Your task to perform on an android device: turn off location history Image 0: 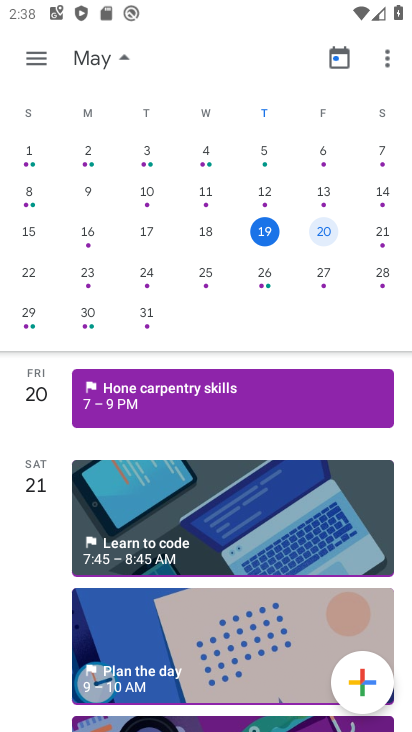
Step 0: press home button
Your task to perform on an android device: turn off location history Image 1: 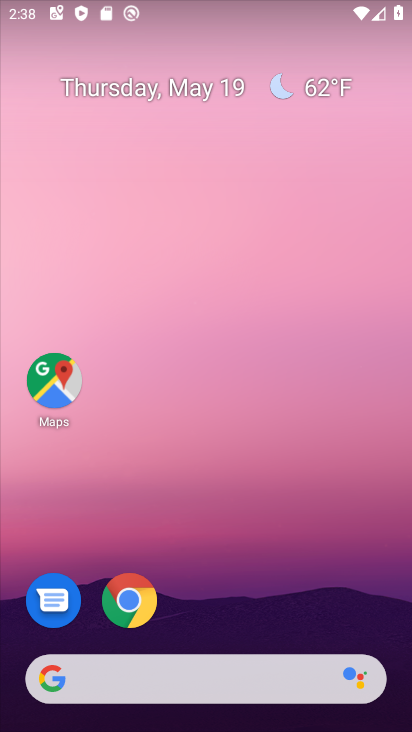
Step 1: drag from (53, 586) to (216, 151)
Your task to perform on an android device: turn off location history Image 2: 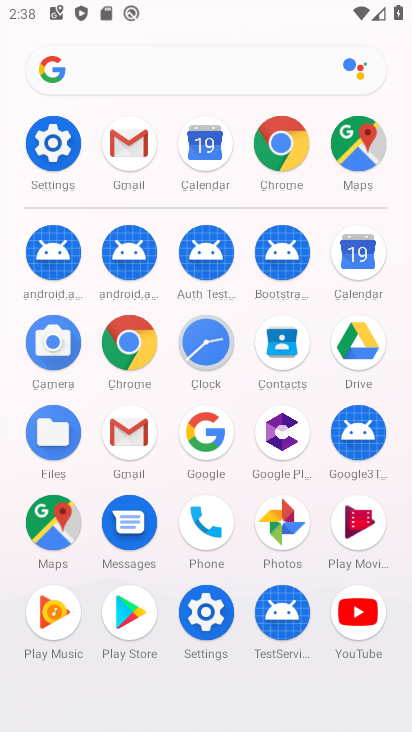
Step 2: click (47, 143)
Your task to perform on an android device: turn off location history Image 3: 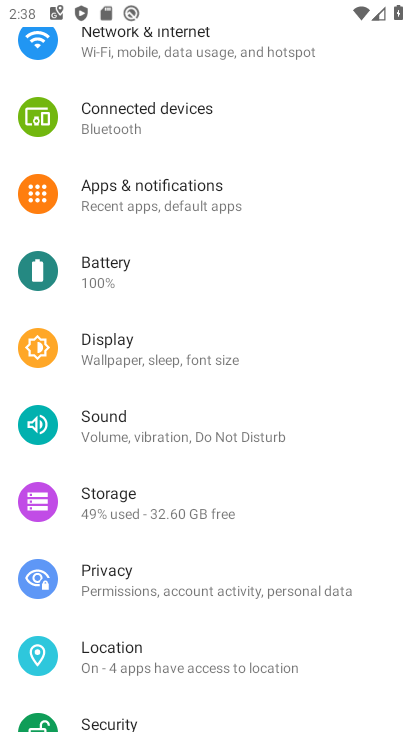
Step 3: click (153, 672)
Your task to perform on an android device: turn off location history Image 4: 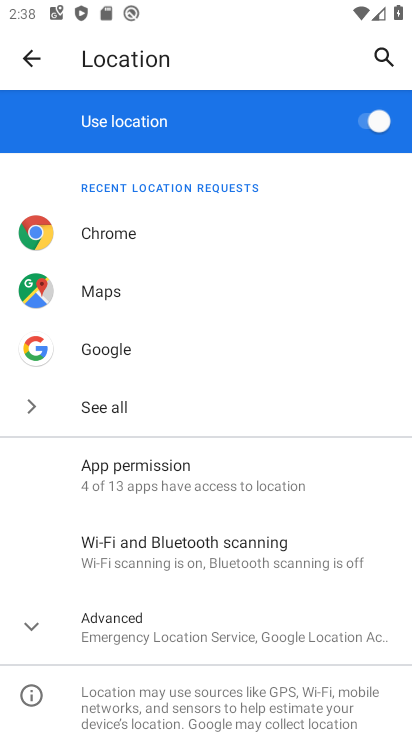
Step 4: click (193, 633)
Your task to perform on an android device: turn off location history Image 5: 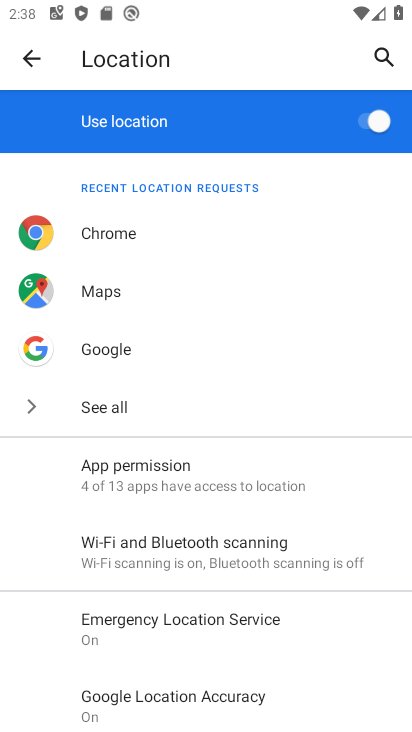
Step 5: drag from (4, 669) to (207, 298)
Your task to perform on an android device: turn off location history Image 6: 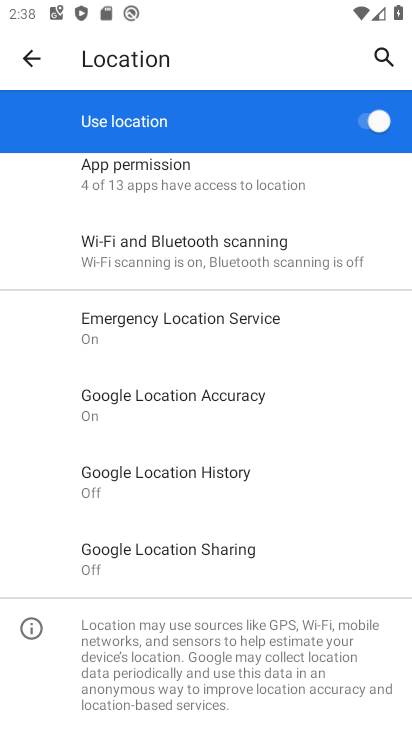
Step 6: click (155, 476)
Your task to perform on an android device: turn off location history Image 7: 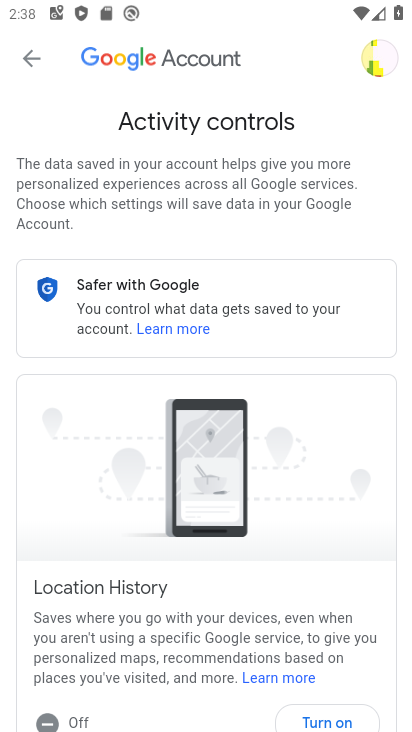
Step 7: drag from (4, 675) to (221, 311)
Your task to perform on an android device: turn off location history Image 8: 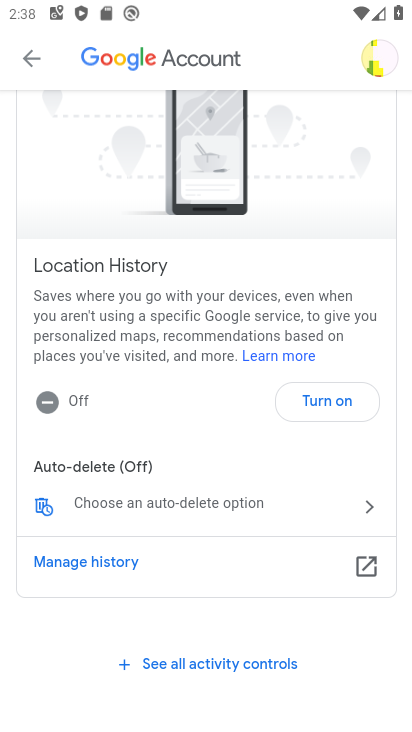
Step 8: click (319, 407)
Your task to perform on an android device: turn off location history Image 9: 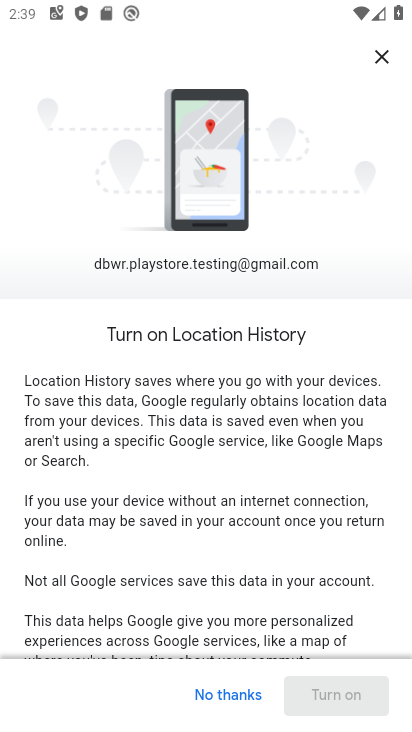
Step 9: drag from (134, 606) to (290, 116)
Your task to perform on an android device: turn off location history Image 10: 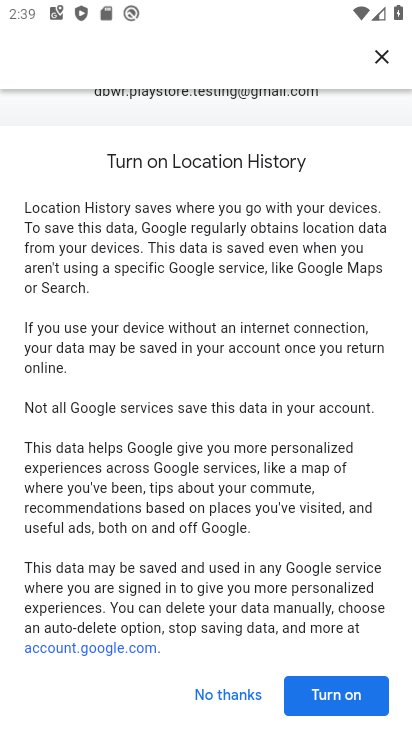
Step 10: click (330, 693)
Your task to perform on an android device: turn off location history Image 11: 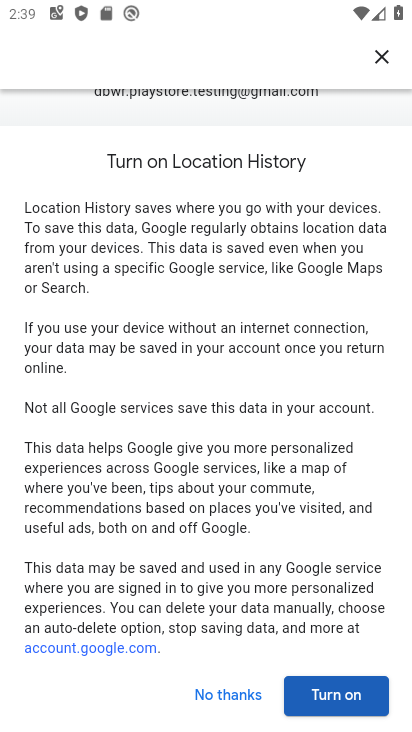
Step 11: click (338, 700)
Your task to perform on an android device: turn off location history Image 12: 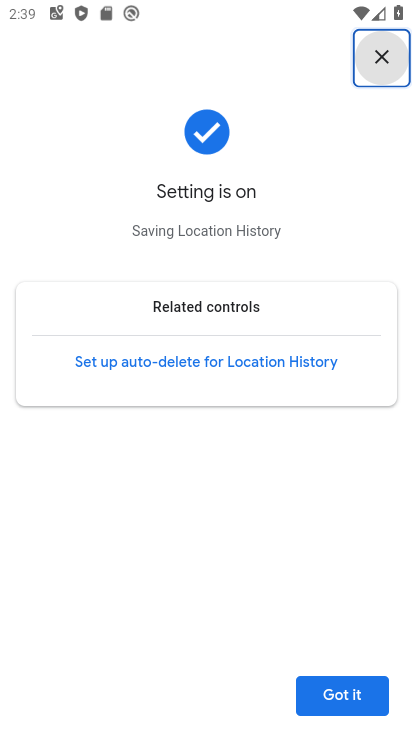
Step 12: click (334, 708)
Your task to perform on an android device: turn off location history Image 13: 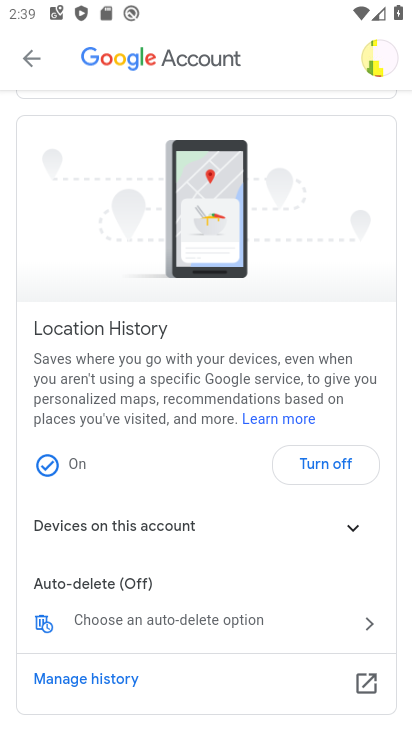
Step 13: task complete